Your task to perform on an android device: turn off notifications in google photos Image 0: 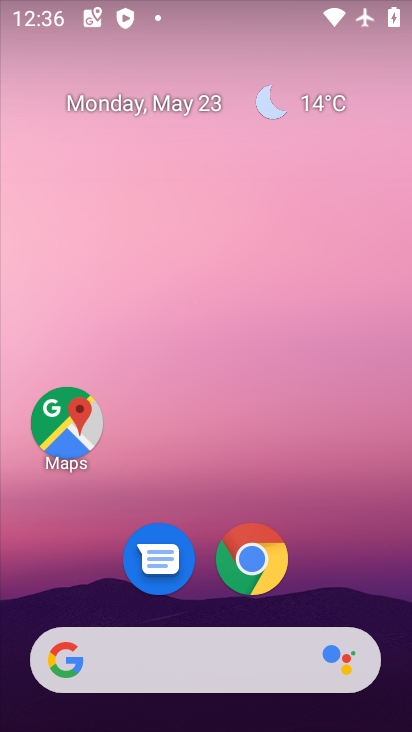
Step 0: drag from (344, 605) to (395, 7)
Your task to perform on an android device: turn off notifications in google photos Image 1: 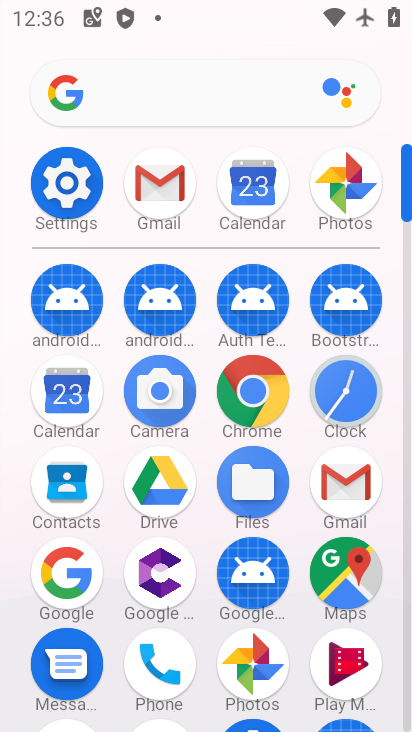
Step 1: click (352, 190)
Your task to perform on an android device: turn off notifications in google photos Image 2: 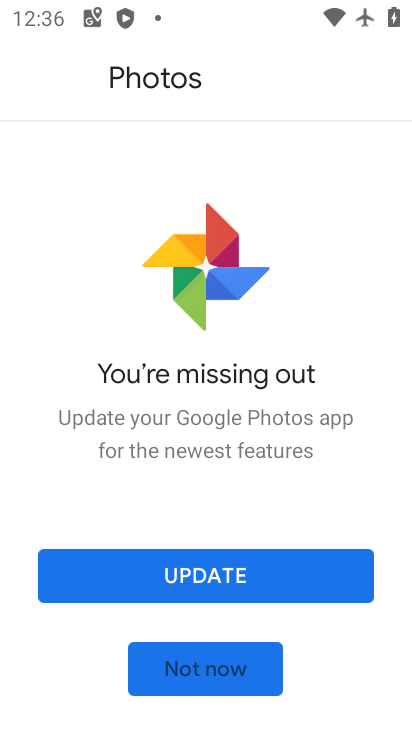
Step 2: click (204, 671)
Your task to perform on an android device: turn off notifications in google photos Image 3: 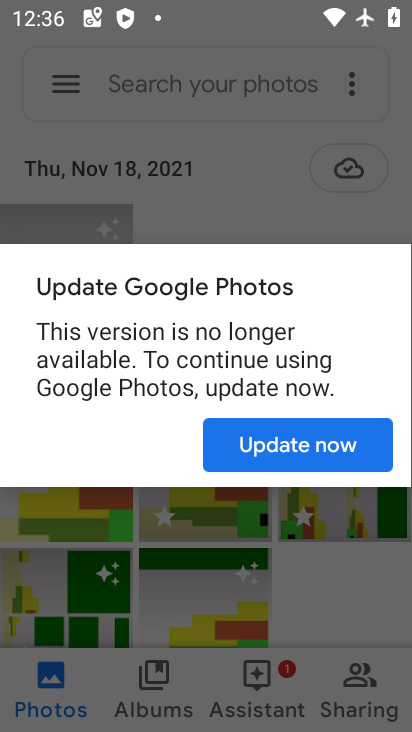
Step 3: click (257, 442)
Your task to perform on an android device: turn off notifications in google photos Image 4: 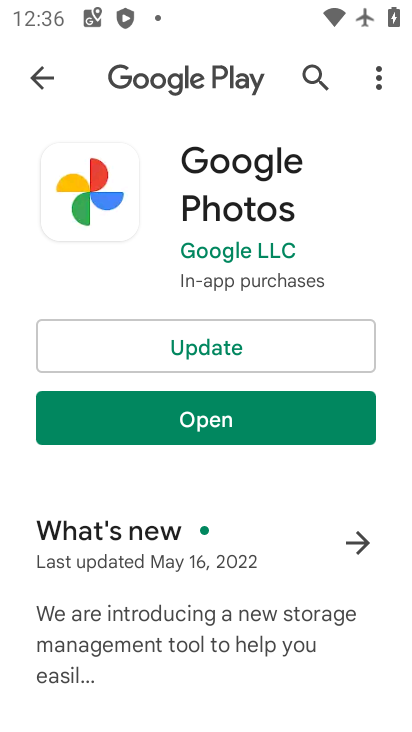
Step 4: click (207, 436)
Your task to perform on an android device: turn off notifications in google photos Image 5: 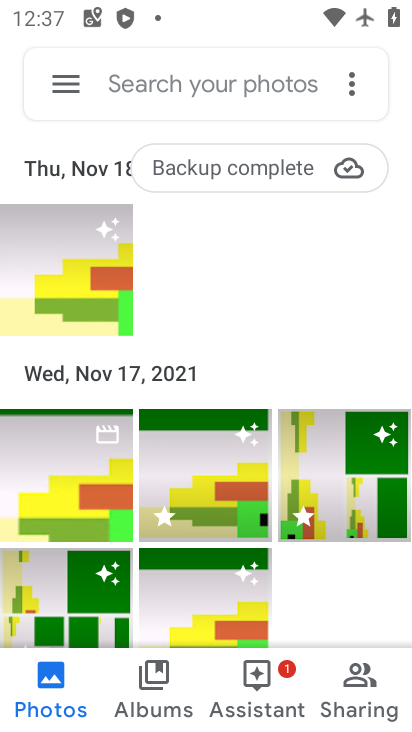
Step 5: click (68, 88)
Your task to perform on an android device: turn off notifications in google photos Image 6: 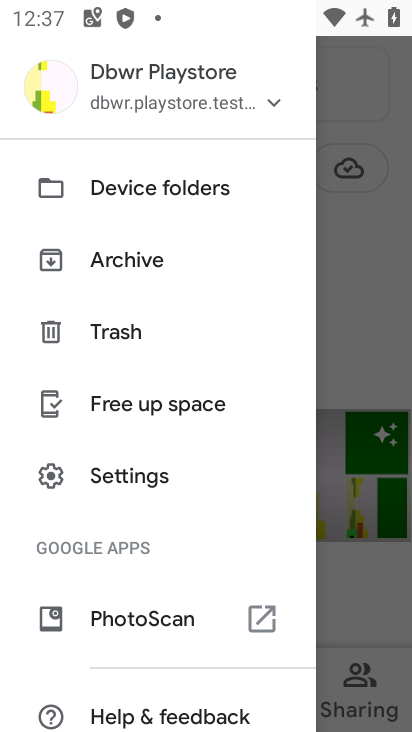
Step 6: click (144, 478)
Your task to perform on an android device: turn off notifications in google photos Image 7: 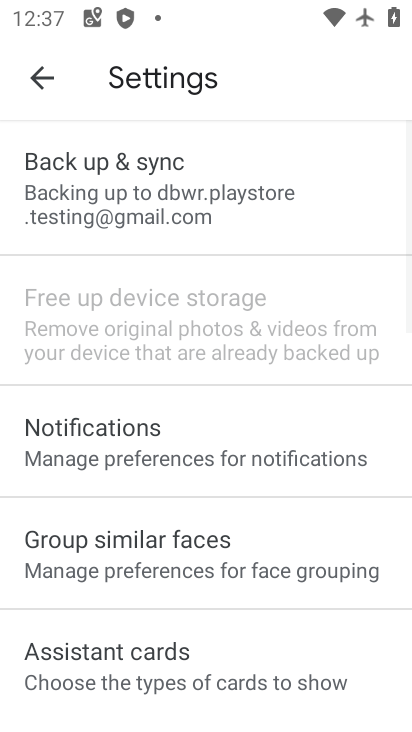
Step 7: click (143, 455)
Your task to perform on an android device: turn off notifications in google photos Image 8: 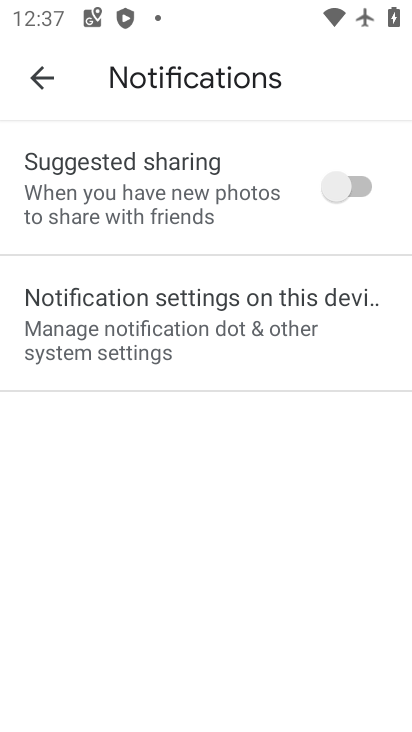
Step 8: click (218, 311)
Your task to perform on an android device: turn off notifications in google photos Image 9: 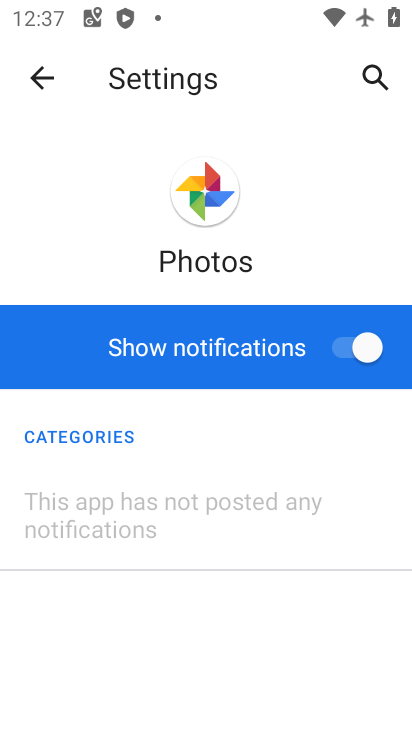
Step 9: click (367, 343)
Your task to perform on an android device: turn off notifications in google photos Image 10: 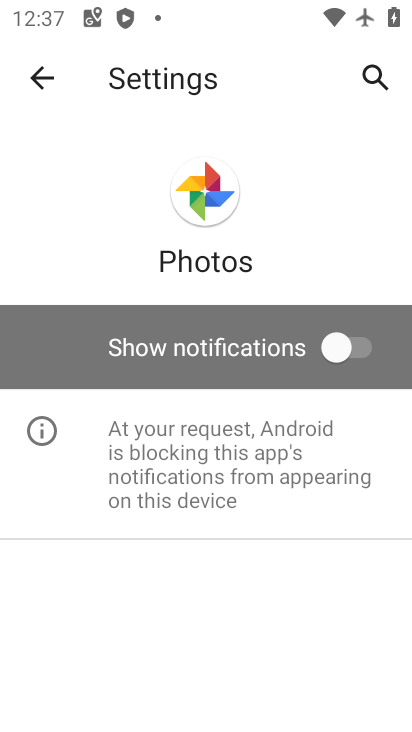
Step 10: task complete